Your task to perform on an android device: Show me productivity apps on the Play Store Image 0: 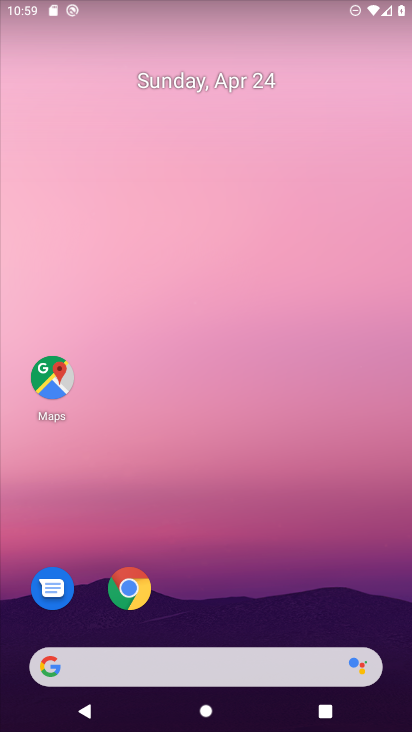
Step 0: drag from (187, 606) to (117, 181)
Your task to perform on an android device: Show me productivity apps on the Play Store Image 1: 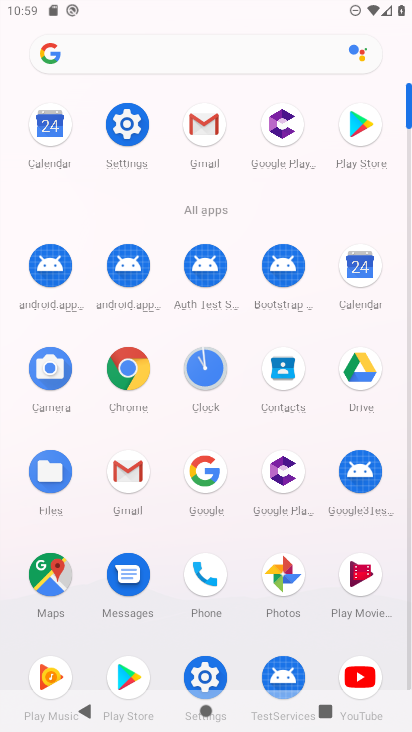
Step 1: click (133, 666)
Your task to perform on an android device: Show me productivity apps on the Play Store Image 2: 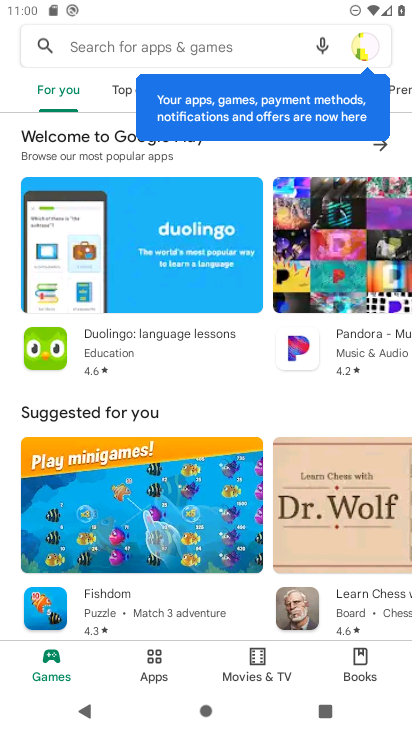
Step 2: drag from (119, 94) to (3, 88)
Your task to perform on an android device: Show me productivity apps on the Play Store Image 3: 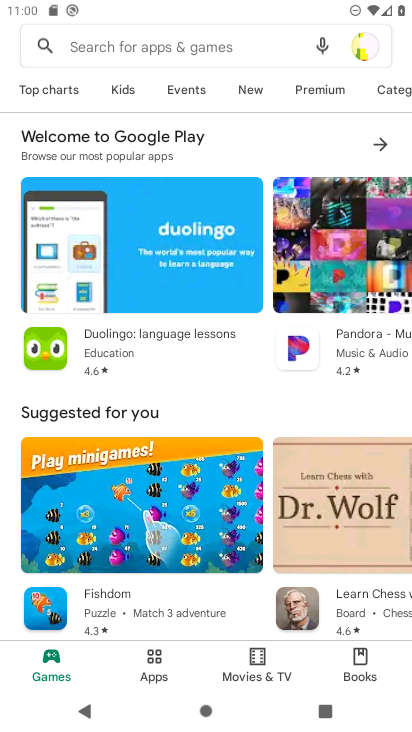
Step 3: click (385, 95)
Your task to perform on an android device: Show me productivity apps on the Play Store Image 4: 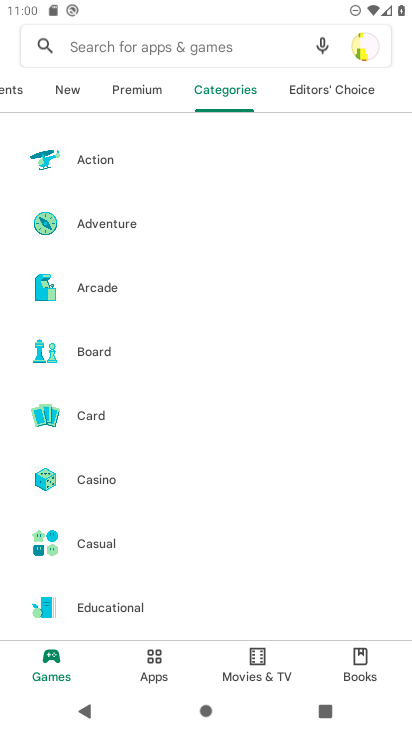
Step 4: drag from (203, 582) to (210, 10)
Your task to perform on an android device: Show me productivity apps on the Play Store Image 5: 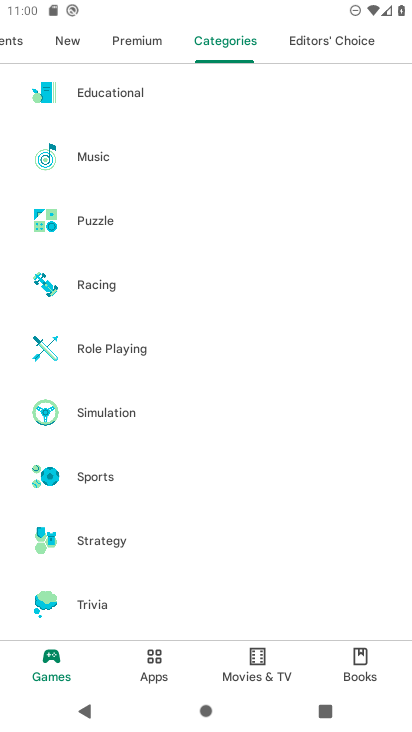
Step 5: drag from (170, 612) to (170, 37)
Your task to perform on an android device: Show me productivity apps on the Play Store Image 6: 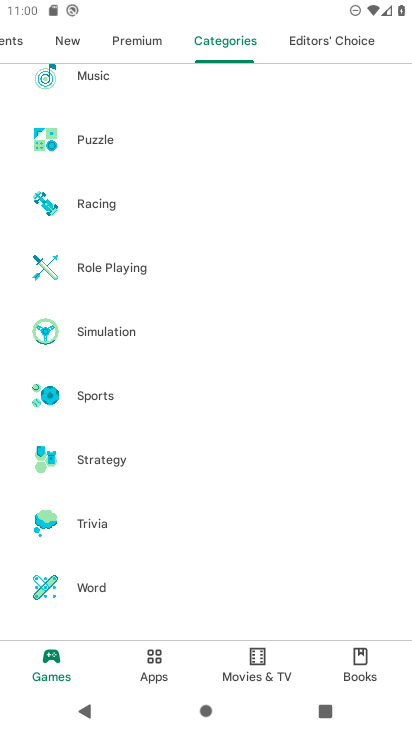
Step 6: drag from (147, 177) to (169, 639)
Your task to perform on an android device: Show me productivity apps on the Play Store Image 7: 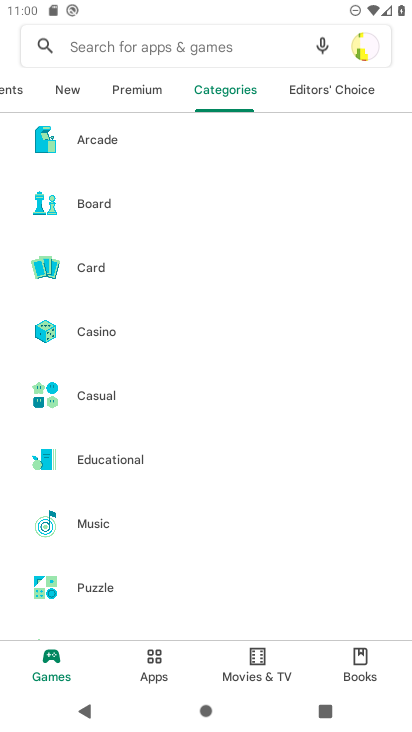
Step 7: drag from (173, 549) to (177, 88)
Your task to perform on an android device: Show me productivity apps on the Play Store Image 8: 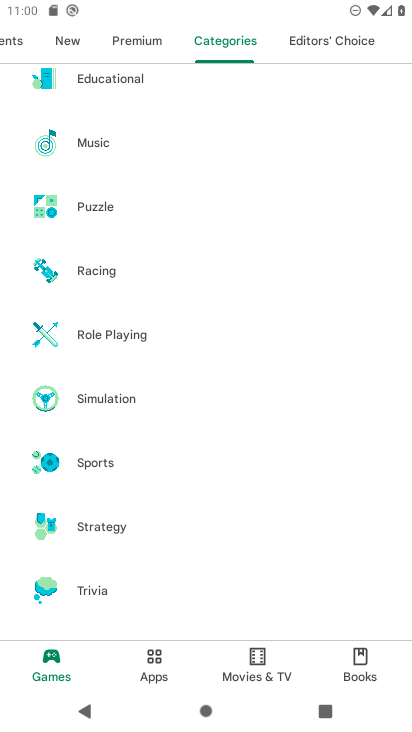
Step 8: drag from (175, 628) to (159, 243)
Your task to perform on an android device: Show me productivity apps on the Play Store Image 9: 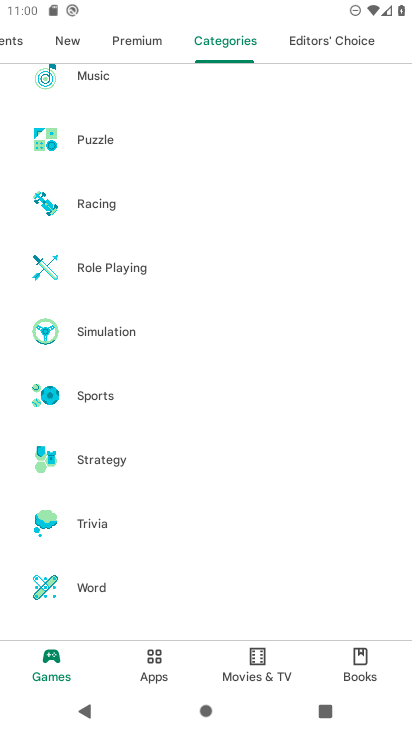
Step 9: drag from (171, 232) to (178, 731)
Your task to perform on an android device: Show me productivity apps on the Play Store Image 10: 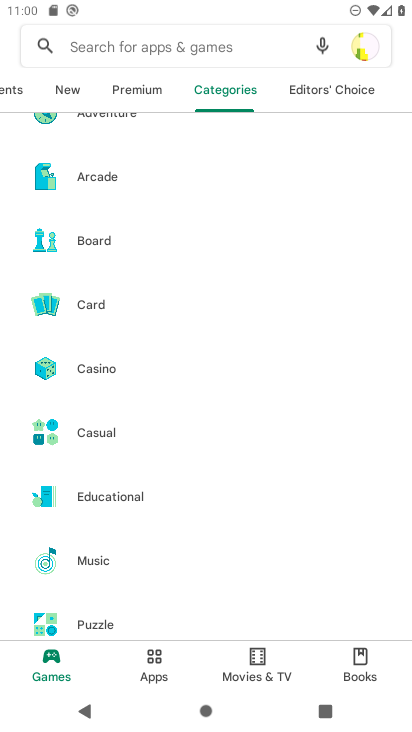
Step 10: click (159, 687)
Your task to perform on an android device: Show me productivity apps on the Play Store Image 11: 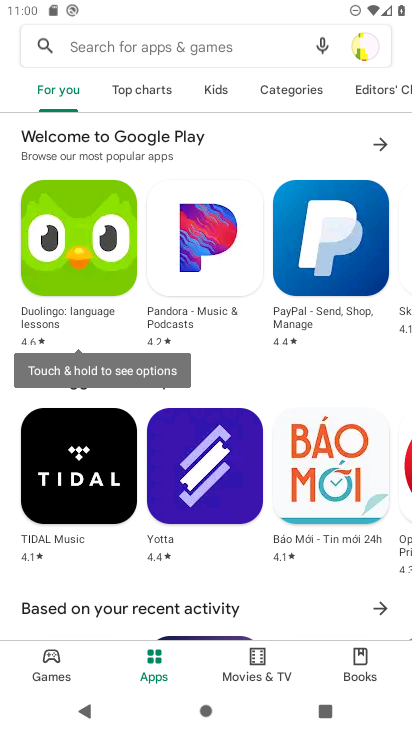
Step 11: drag from (382, 86) to (14, 139)
Your task to perform on an android device: Show me productivity apps on the Play Store Image 12: 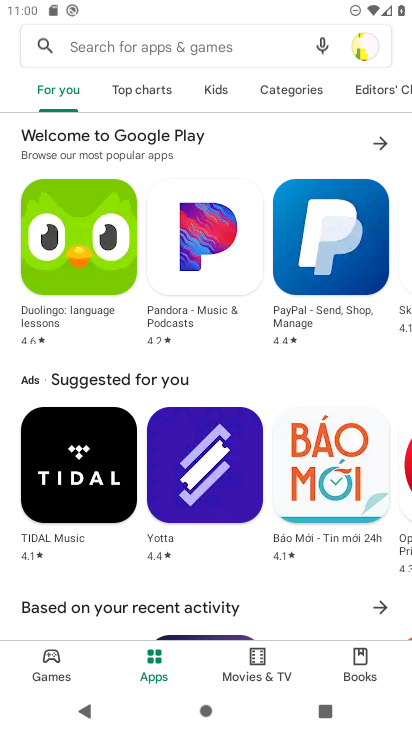
Step 12: drag from (356, 92) to (87, 81)
Your task to perform on an android device: Show me productivity apps on the Play Store Image 13: 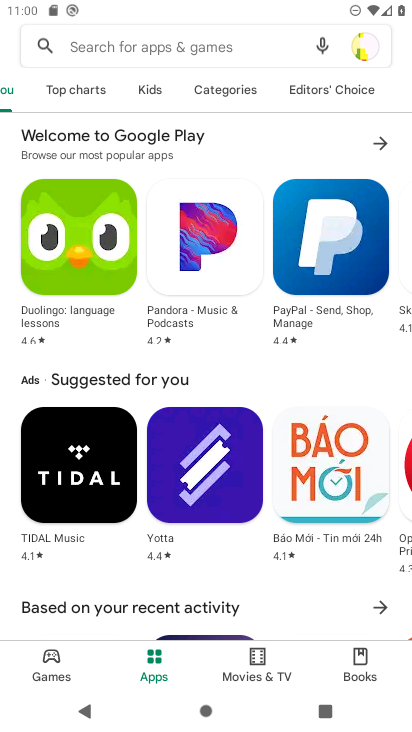
Step 13: click (236, 91)
Your task to perform on an android device: Show me productivity apps on the Play Store Image 14: 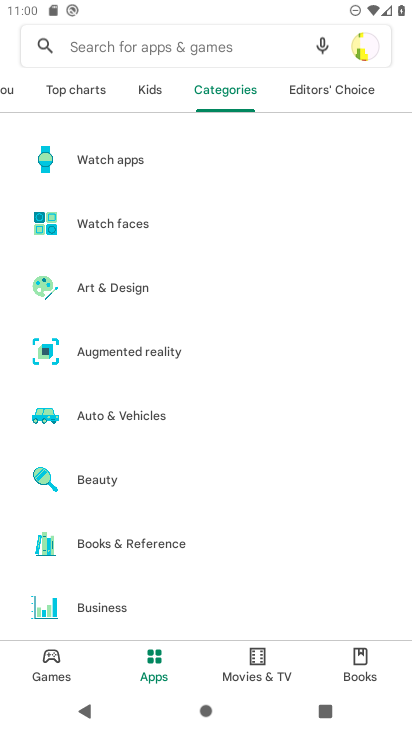
Step 14: drag from (210, 560) to (155, 7)
Your task to perform on an android device: Show me productivity apps on the Play Store Image 15: 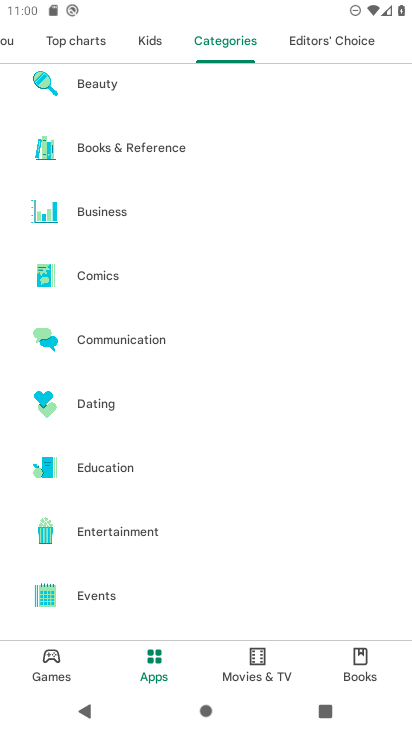
Step 15: drag from (187, 629) to (200, 215)
Your task to perform on an android device: Show me productivity apps on the Play Store Image 16: 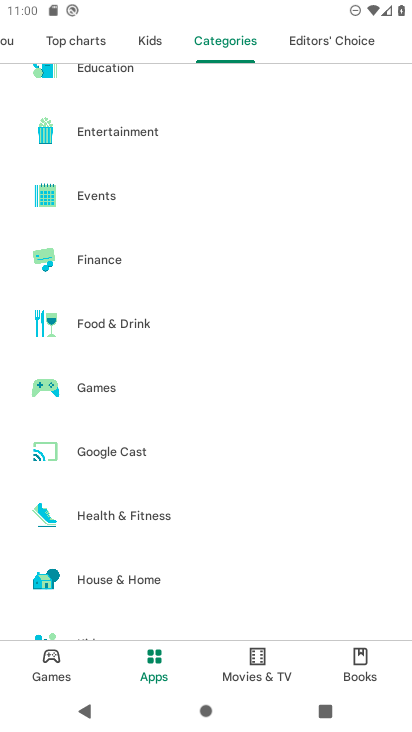
Step 16: drag from (239, 472) to (140, 11)
Your task to perform on an android device: Show me productivity apps on the Play Store Image 17: 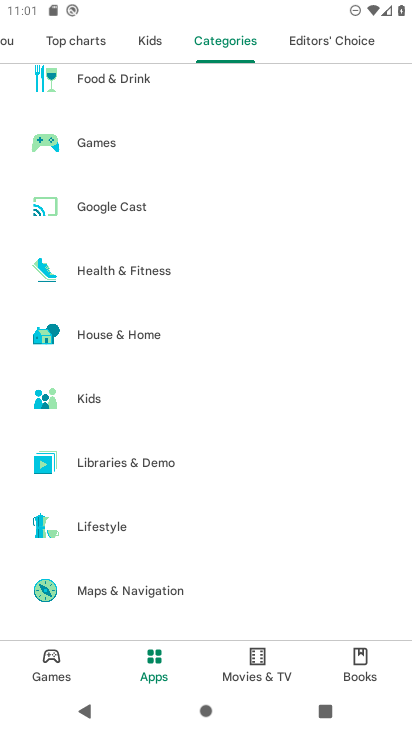
Step 17: drag from (124, 505) to (141, 4)
Your task to perform on an android device: Show me productivity apps on the Play Store Image 18: 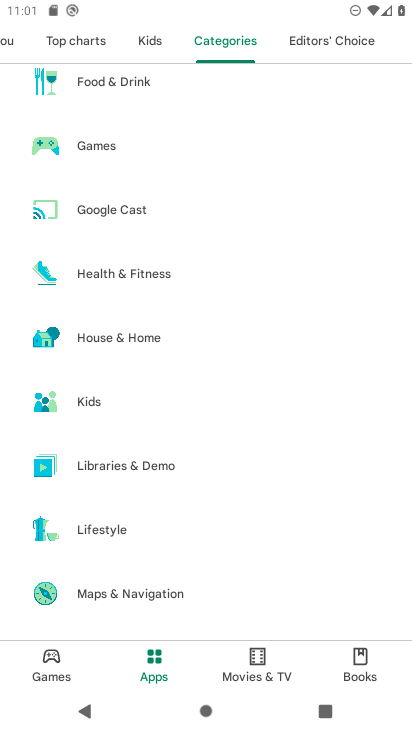
Step 18: drag from (122, 542) to (193, 11)
Your task to perform on an android device: Show me productivity apps on the Play Store Image 19: 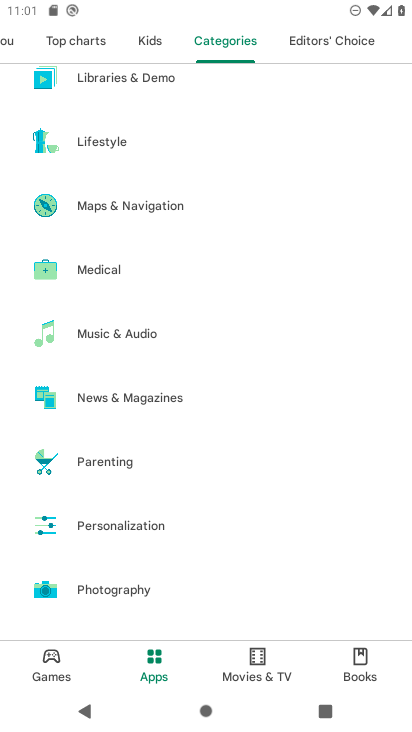
Step 19: drag from (170, 586) to (179, 45)
Your task to perform on an android device: Show me productivity apps on the Play Store Image 20: 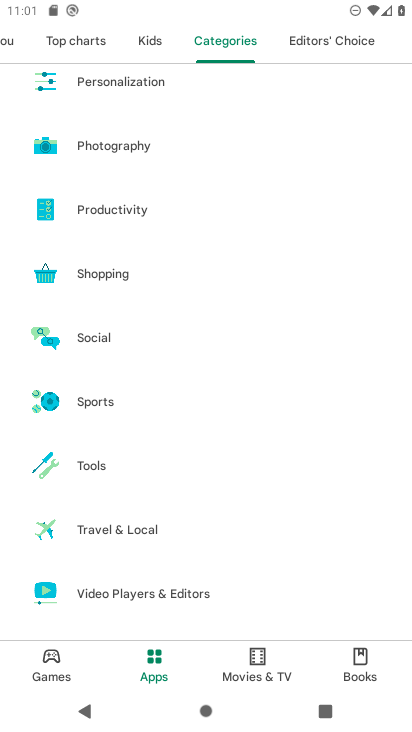
Step 20: click (98, 216)
Your task to perform on an android device: Show me productivity apps on the Play Store Image 21: 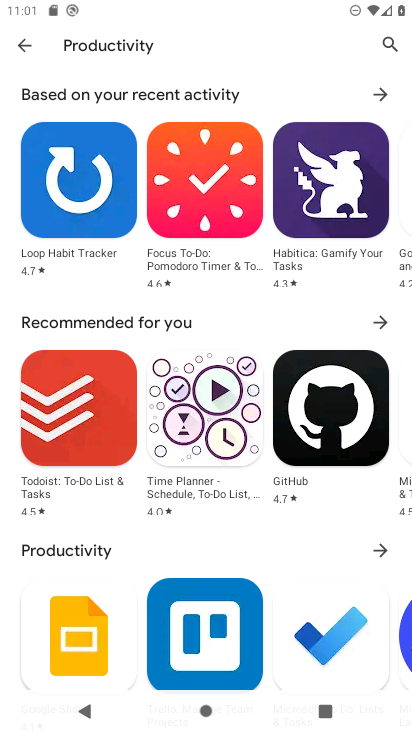
Step 21: task complete